Your task to perform on an android device: Go to sound settings Image 0: 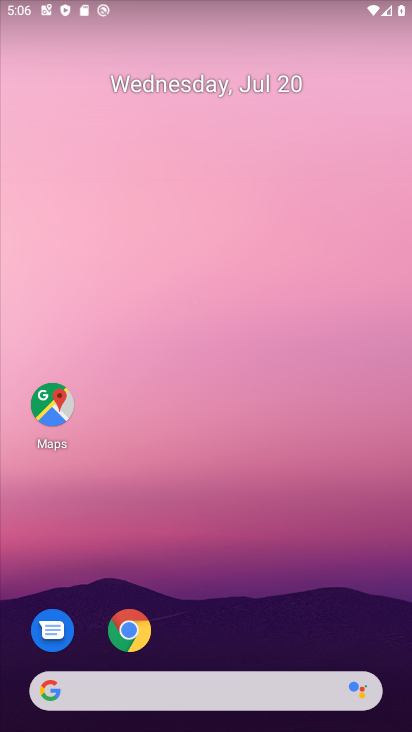
Step 0: click (284, 41)
Your task to perform on an android device: Go to sound settings Image 1: 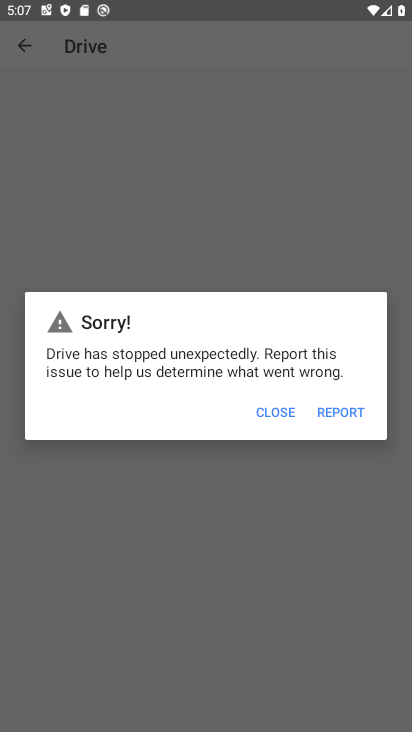
Step 1: press home button
Your task to perform on an android device: Go to sound settings Image 2: 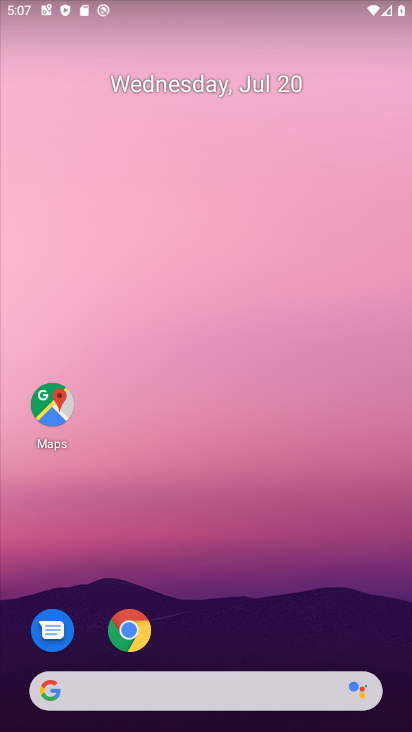
Step 2: drag from (292, 686) to (360, 70)
Your task to perform on an android device: Go to sound settings Image 3: 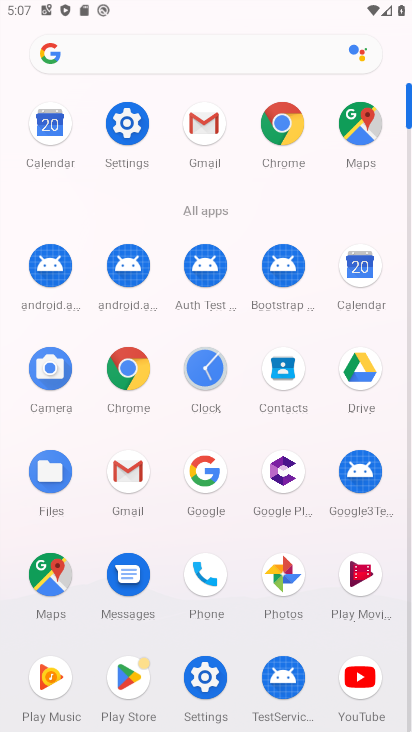
Step 3: click (137, 135)
Your task to perform on an android device: Go to sound settings Image 4: 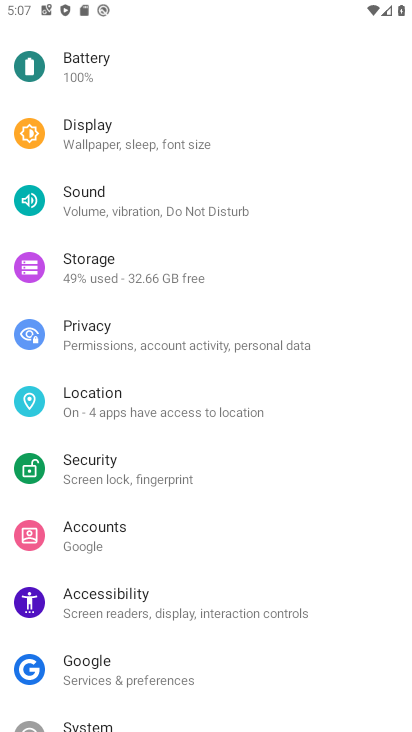
Step 4: click (109, 210)
Your task to perform on an android device: Go to sound settings Image 5: 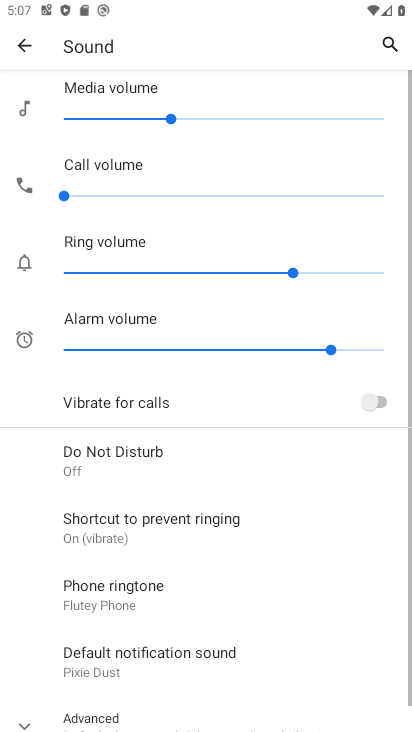
Step 5: task complete